Your task to perform on an android device: What is the news today? Image 0: 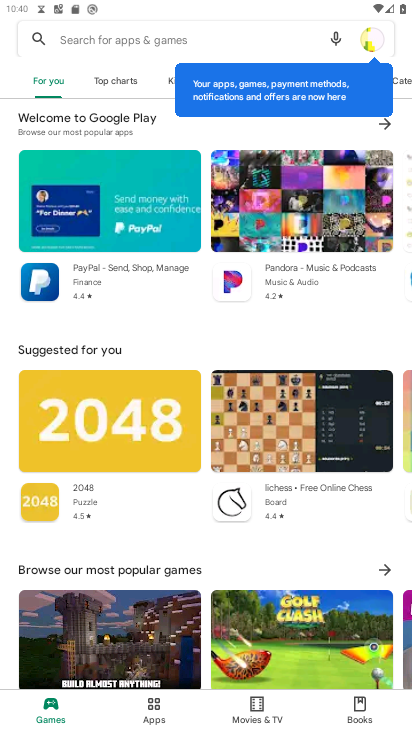
Step 0: press home button
Your task to perform on an android device: What is the news today? Image 1: 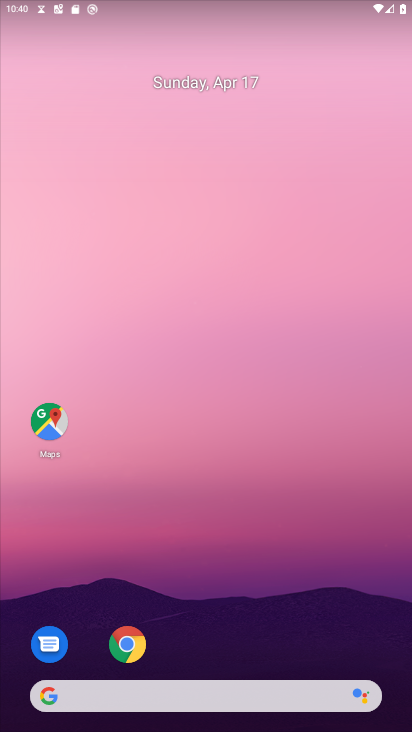
Step 1: click (126, 642)
Your task to perform on an android device: What is the news today? Image 2: 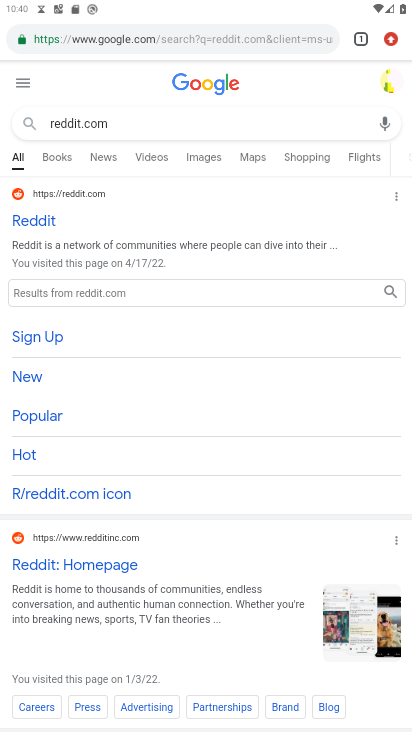
Step 2: click (68, 121)
Your task to perform on an android device: What is the news today? Image 3: 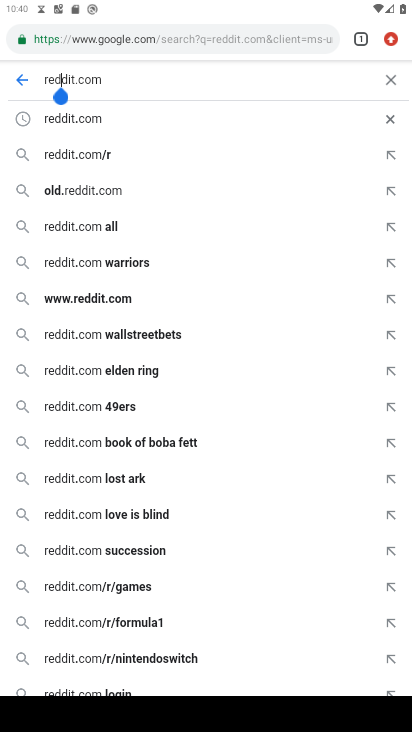
Step 3: click (61, 75)
Your task to perform on an android device: What is the news today? Image 4: 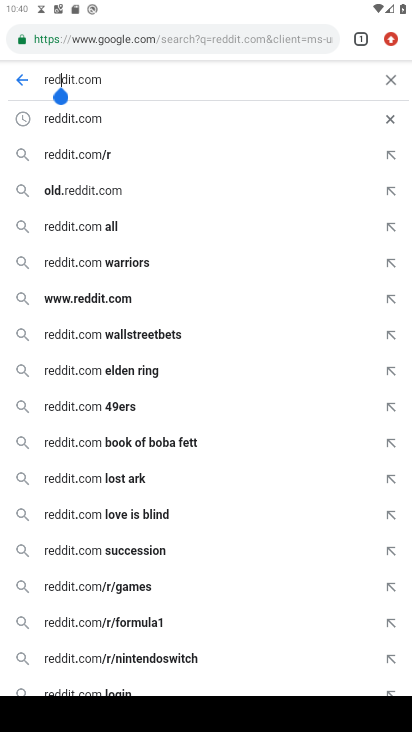
Step 4: click (61, 75)
Your task to perform on an android device: What is the news today? Image 5: 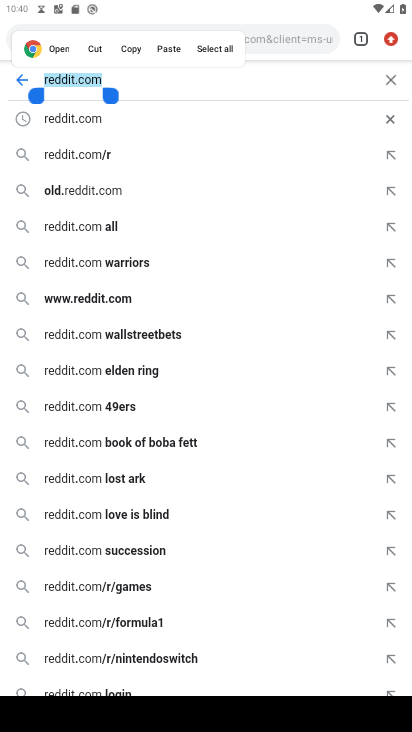
Step 5: type "news today"
Your task to perform on an android device: What is the news today? Image 6: 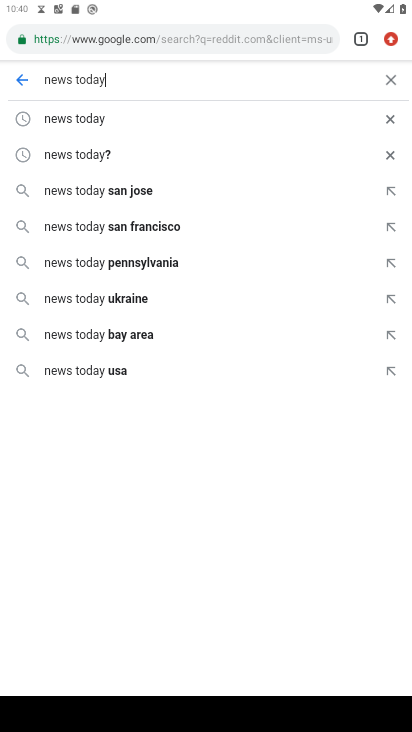
Step 6: click (86, 156)
Your task to perform on an android device: What is the news today? Image 7: 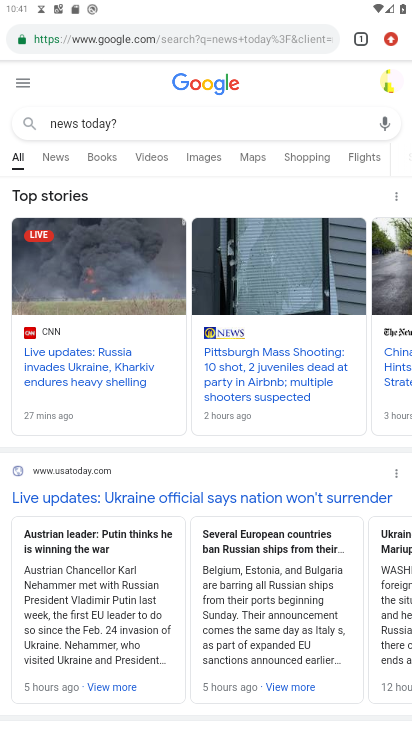
Step 7: task complete